Your task to perform on an android device: star an email in the gmail app Image 0: 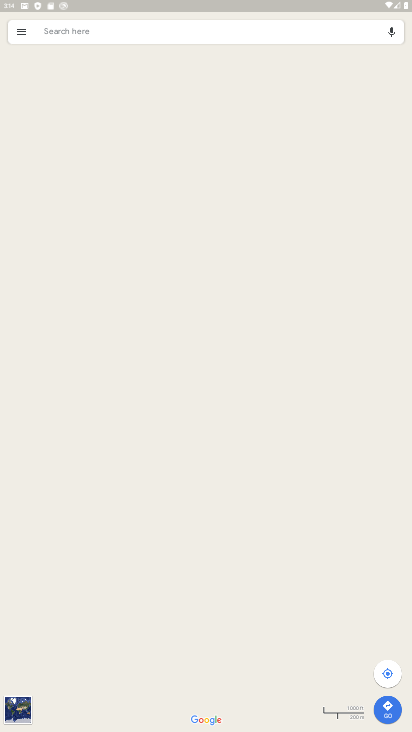
Step 0: click (242, 266)
Your task to perform on an android device: star an email in the gmail app Image 1: 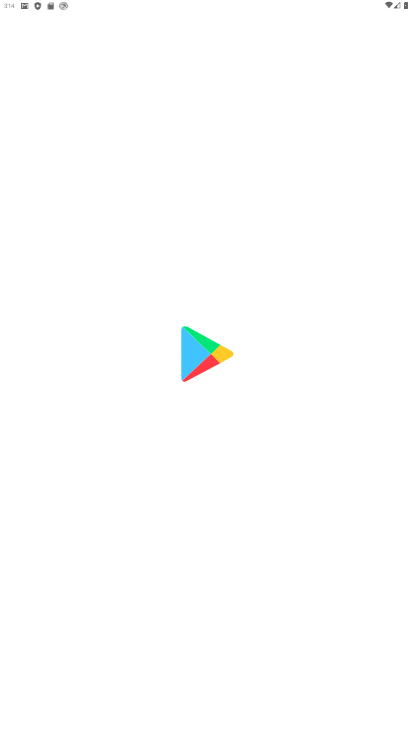
Step 1: drag from (141, 687) to (197, 252)
Your task to perform on an android device: star an email in the gmail app Image 2: 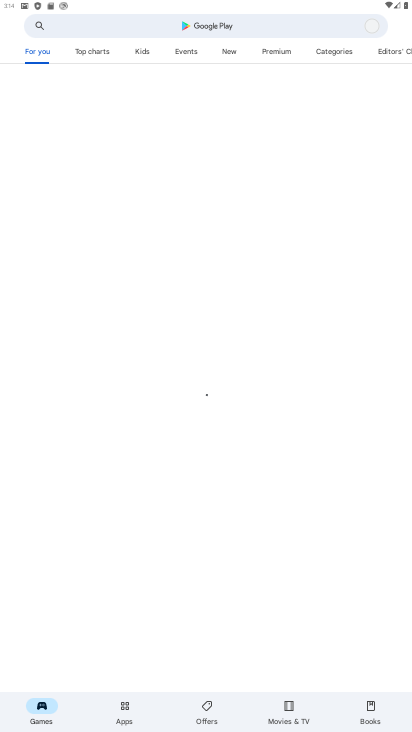
Step 2: press home button
Your task to perform on an android device: star an email in the gmail app Image 3: 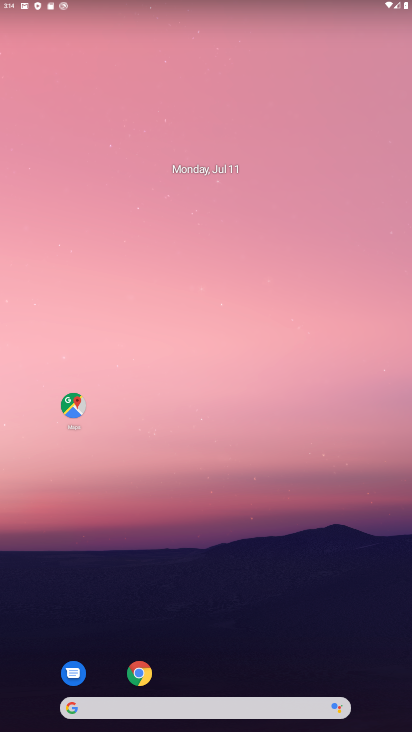
Step 3: drag from (181, 571) to (215, 210)
Your task to perform on an android device: star an email in the gmail app Image 4: 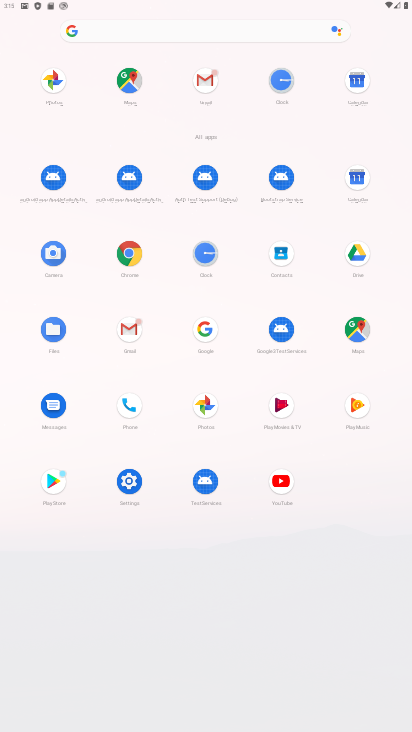
Step 4: click (130, 336)
Your task to perform on an android device: star an email in the gmail app Image 5: 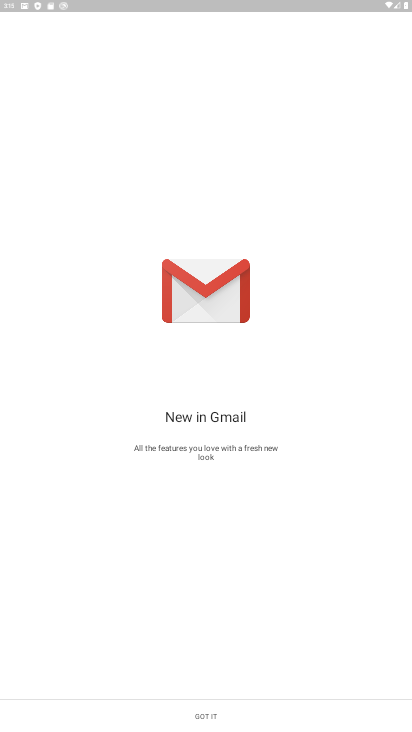
Step 5: click (198, 716)
Your task to perform on an android device: star an email in the gmail app Image 6: 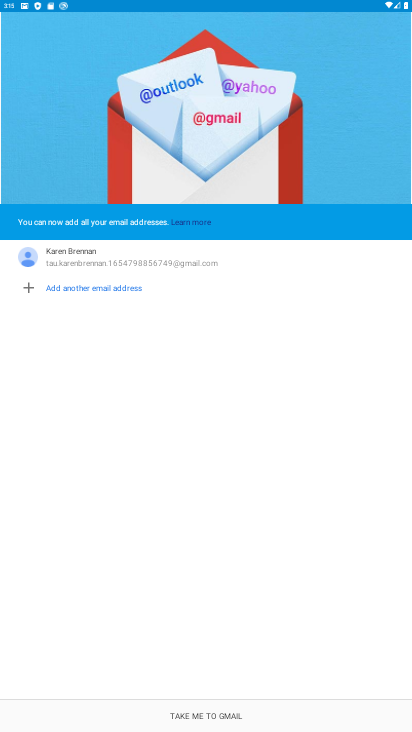
Step 6: click (198, 716)
Your task to perform on an android device: star an email in the gmail app Image 7: 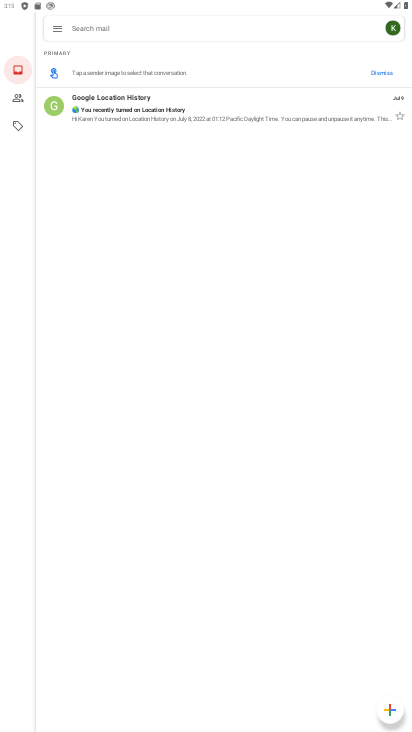
Step 7: click (397, 115)
Your task to perform on an android device: star an email in the gmail app Image 8: 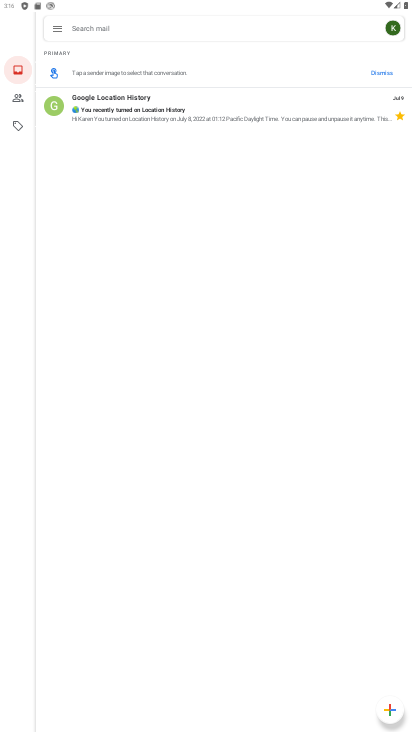
Step 8: task complete